Your task to perform on an android device: see tabs open on other devices in the chrome app Image 0: 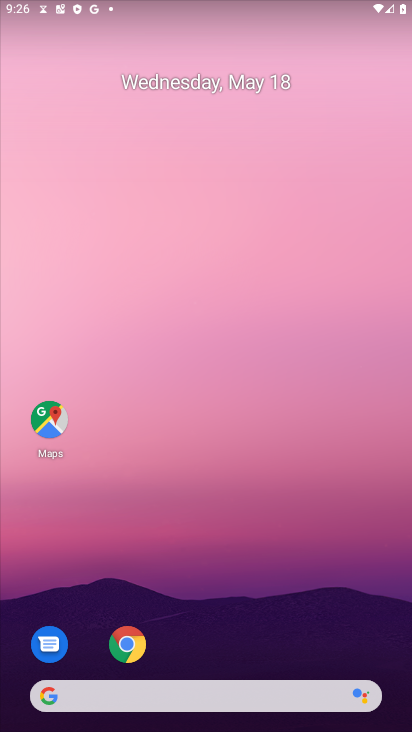
Step 0: click (128, 645)
Your task to perform on an android device: see tabs open on other devices in the chrome app Image 1: 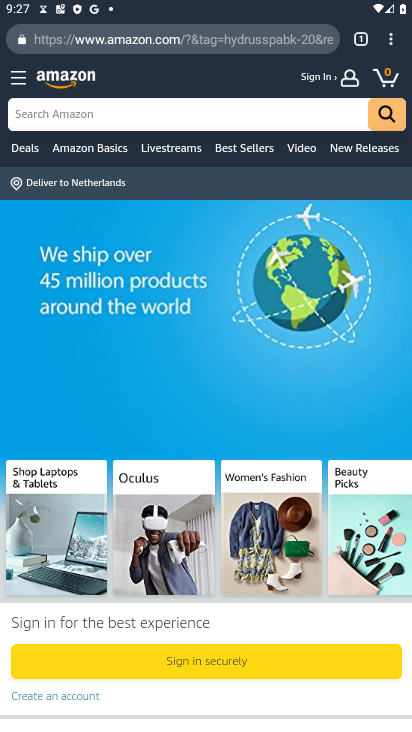
Step 1: click (392, 38)
Your task to perform on an android device: see tabs open on other devices in the chrome app Image 2: 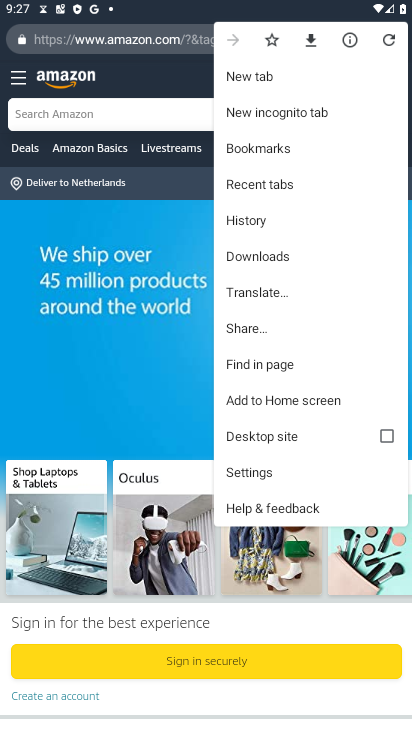
Step 2: click (267, 180)
Your task to perform on an android device: see tabs open on other devices in the chrome app Image 3: 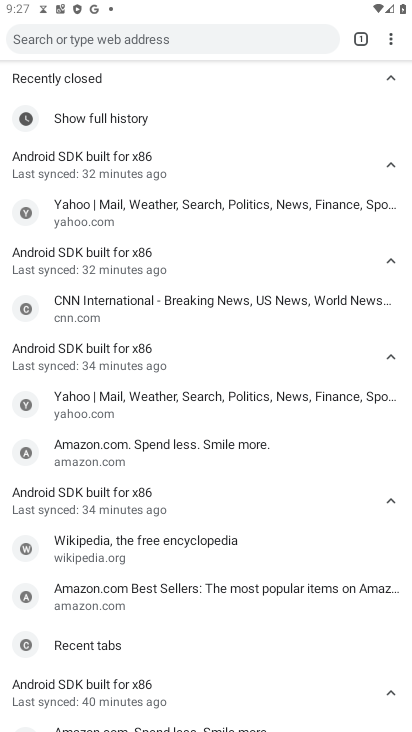
Step 3: task complete